Your task to perform on an android device: Search for logitech g502 on bestbuy, select the first entry, add it to the cart, then select checkout. Image 0: 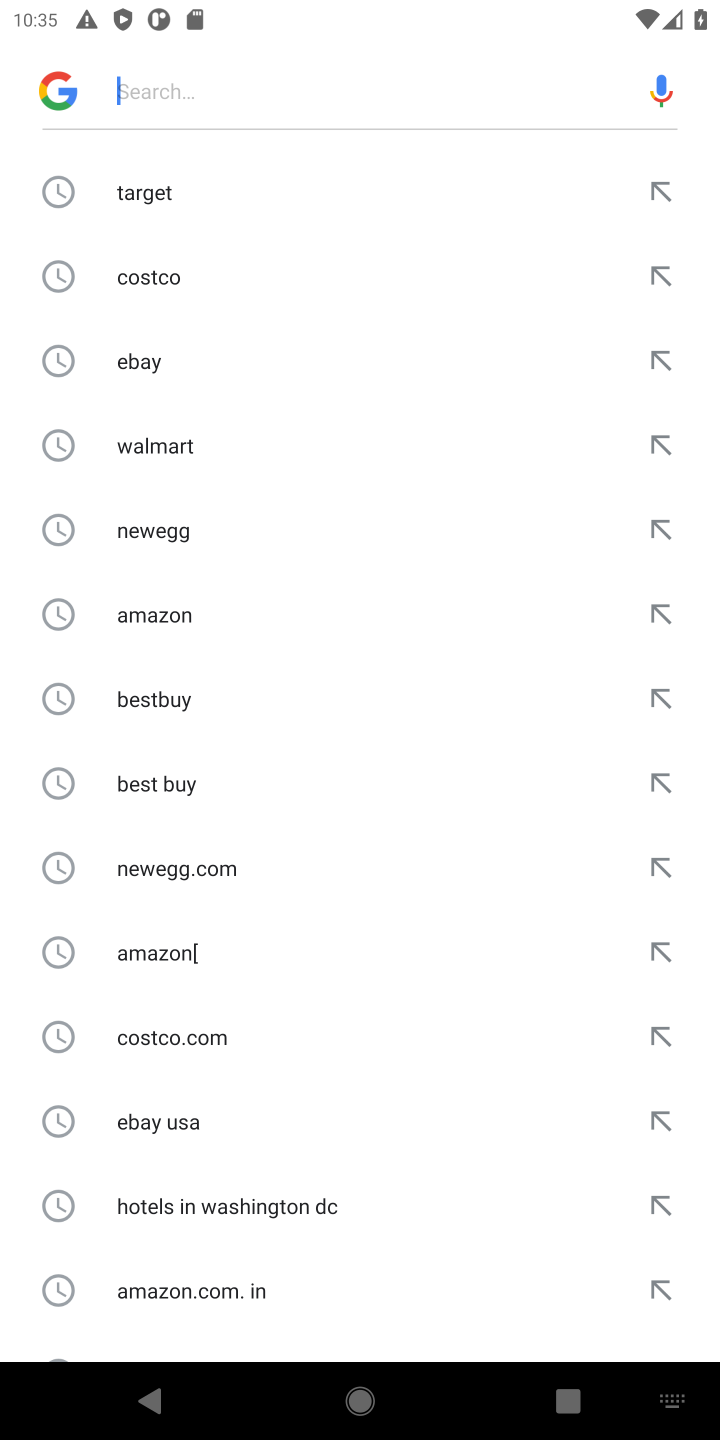
Step 0: press home button
Your task to perform on an android device: Search for logitech g502 on bestbuy, select the first entry, add it to the cart, then select checkout. Image 1: 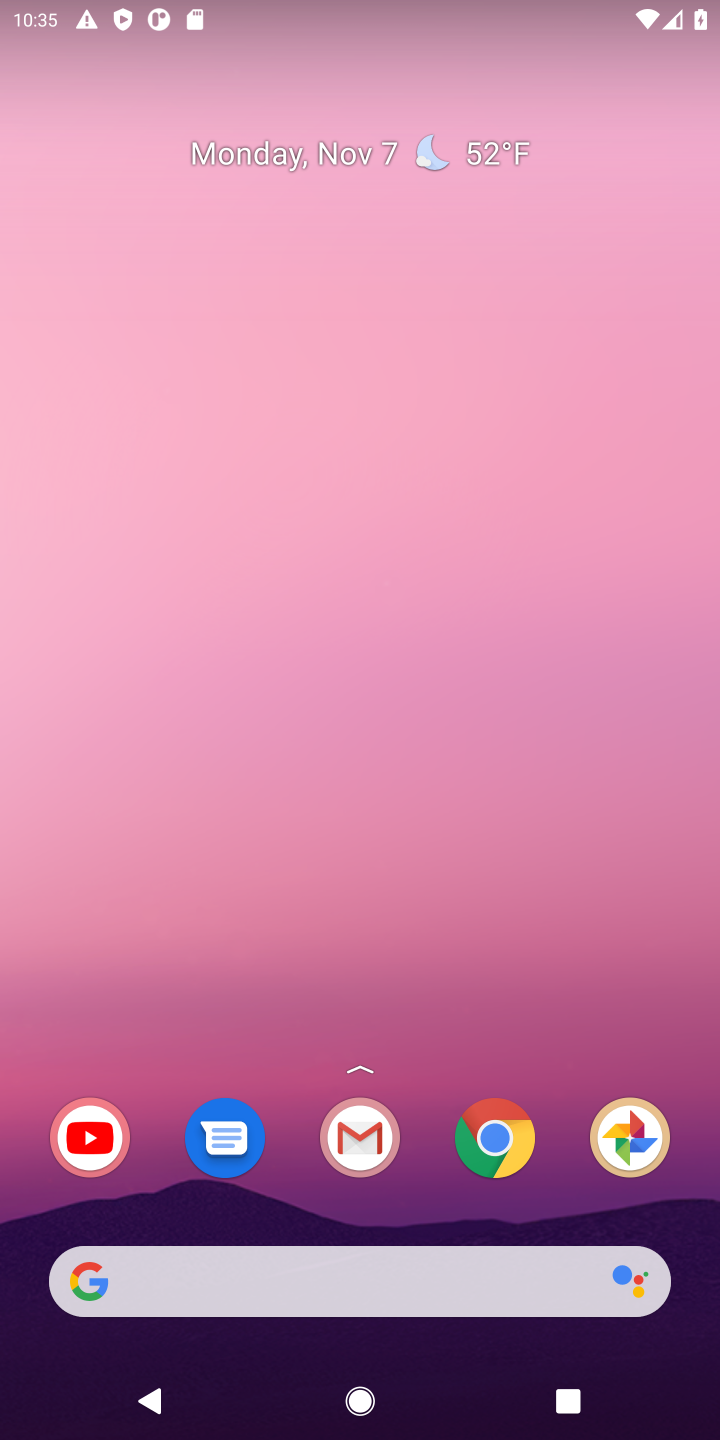
Step 1: click (494, 1124)
Your task to perform on an android device: Search for logitech g502 on bestbuy, select the first entry, add it to the cart, then select checkout. Image 2: 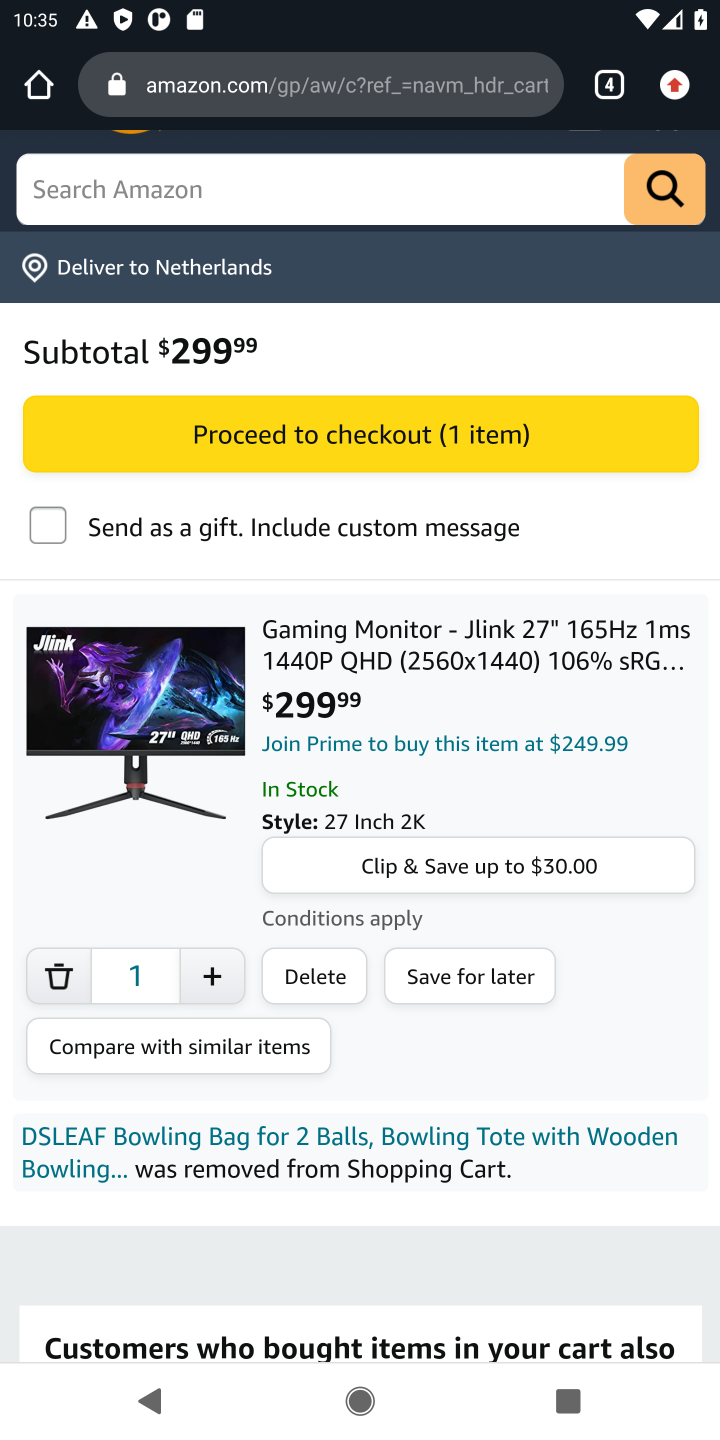
Step 2: click (233, 93)
Your task to perform on an android device: Search for logitech g502 on bestbuy, select the first entry, add it to the cart, then select checkout. Image 3: 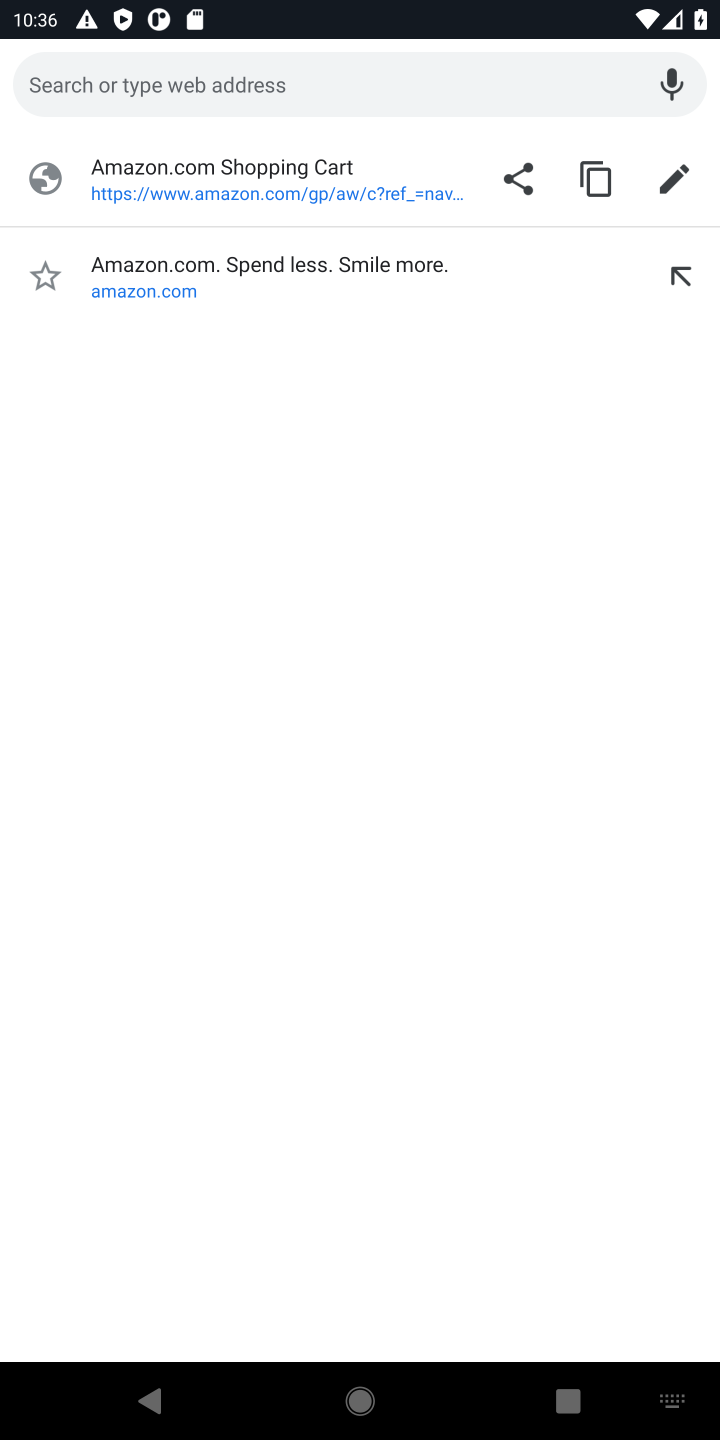
Step 3: type "bestbuy"
Your task to perform on an android device: Search for logitech g502 on bestbuy, select the first entry, add it to the cart, then select checkout. Image 4: 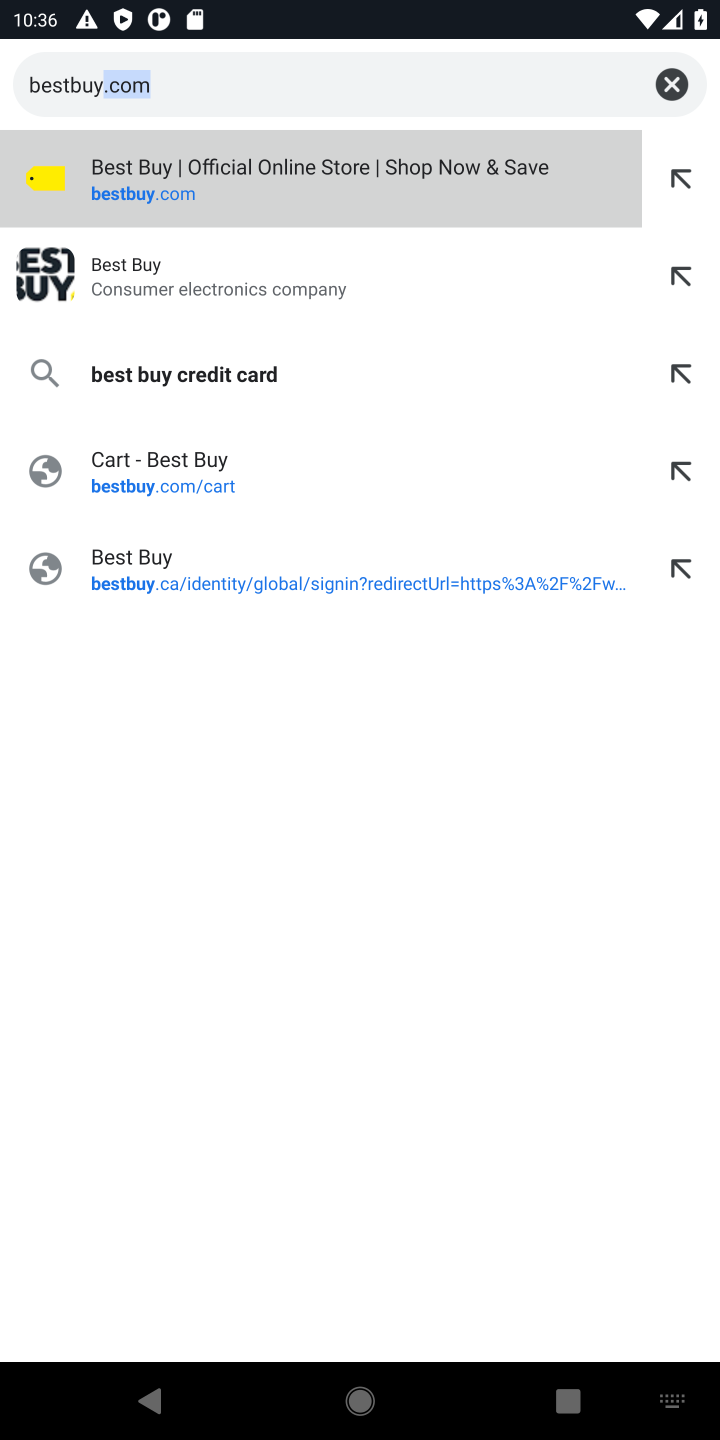
Step 4: click (143, 263)
Your task to perform on an android device: Search for logitech g502 on bestbuy, select the first entry, add it to the cart, then select checkout. Image 5: 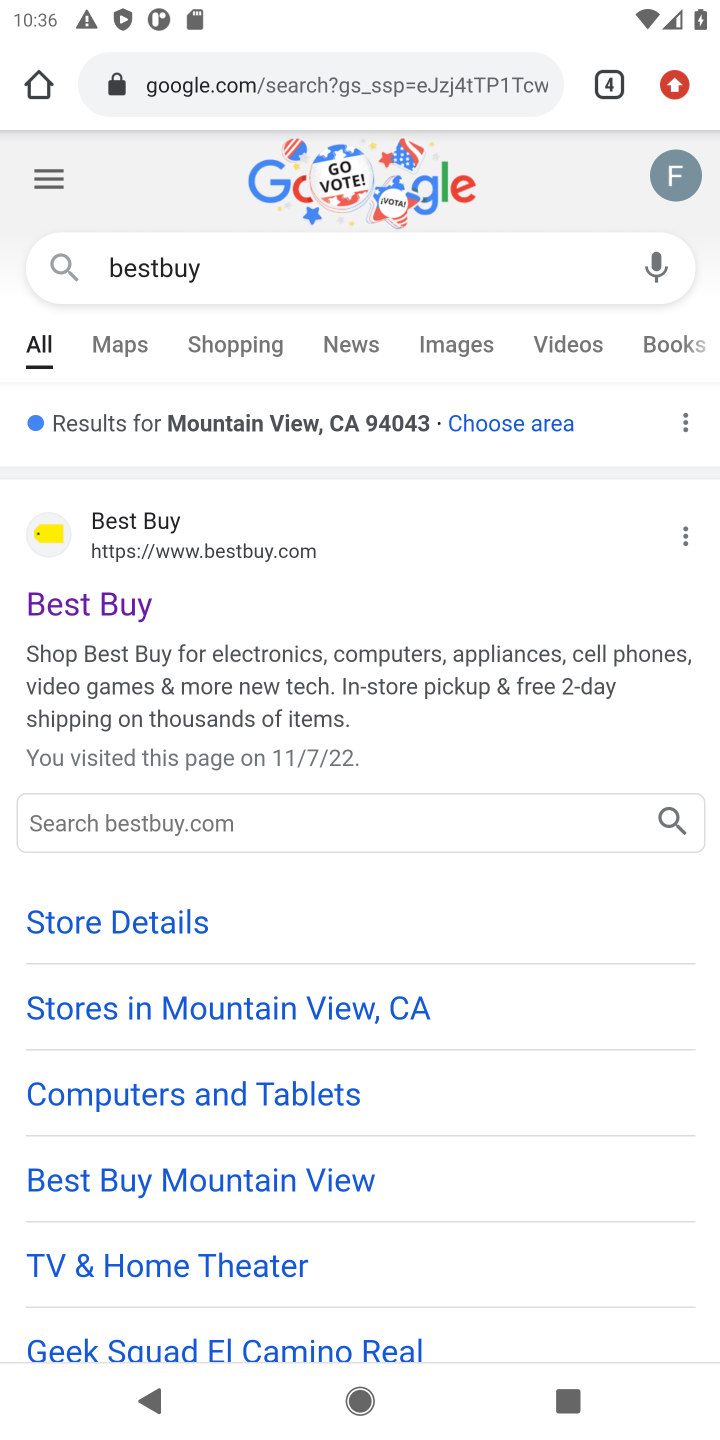
Step 5: click (82, 602)
Your task to perform on an android device: Search for logitech g502 on bestbuy, select the first entry, add it to the cart, then select checkout. Image 6: 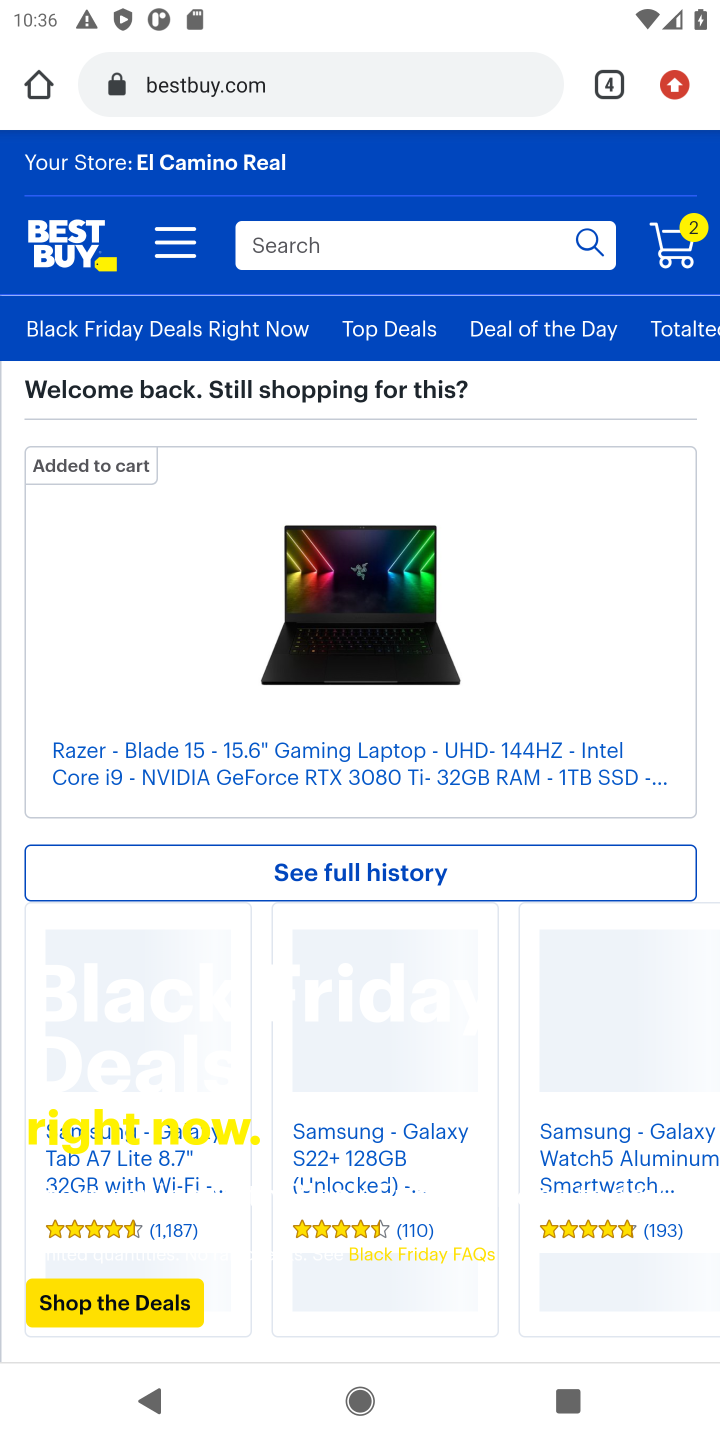
Step 6: click (305, 259)
Your task to perform on an android device: Search for logitech g502 on bestbuy, select the first entry, add it to the cart, then select checkout. Image 7: 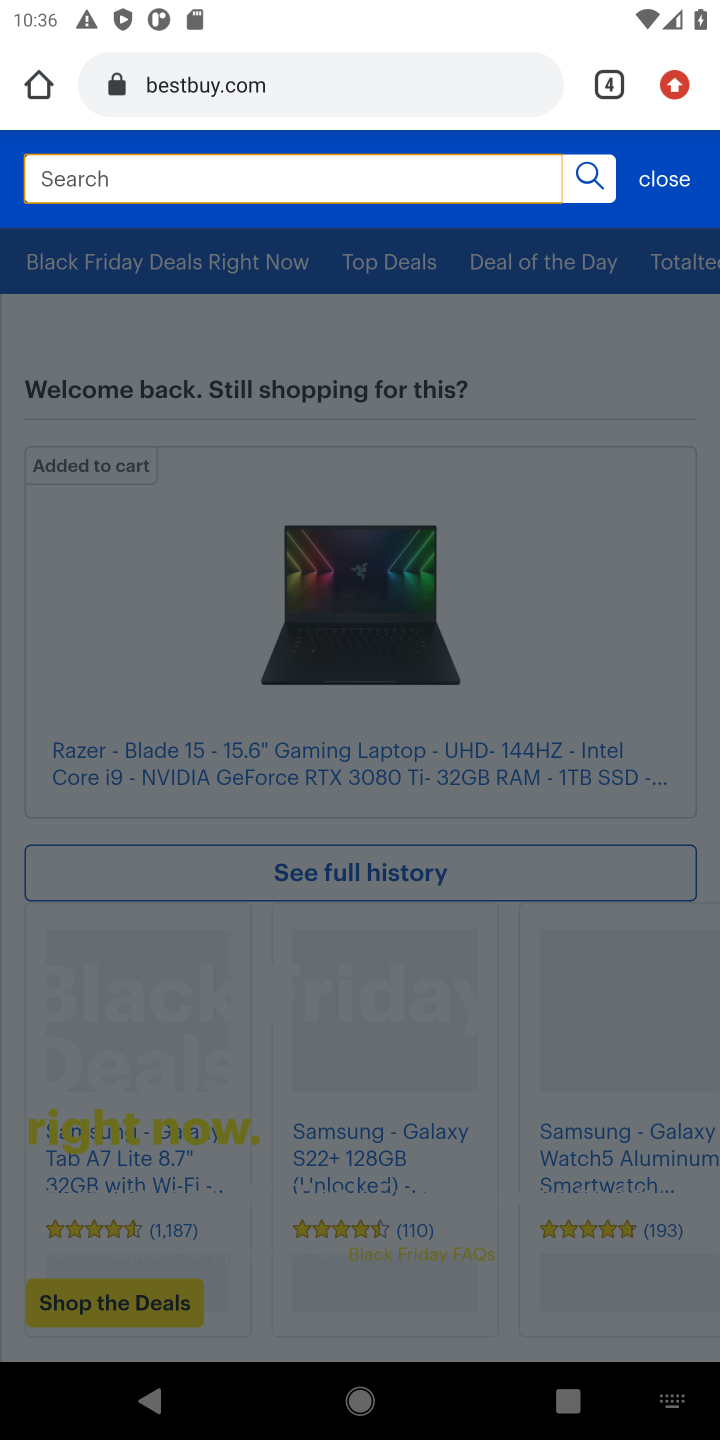
Step 7: type "logitech g 502"
Your task to perform on an android device: Search for logitech g502 on bestbuy, select the first entry, add it to the cart, then select checkout. Image 8: 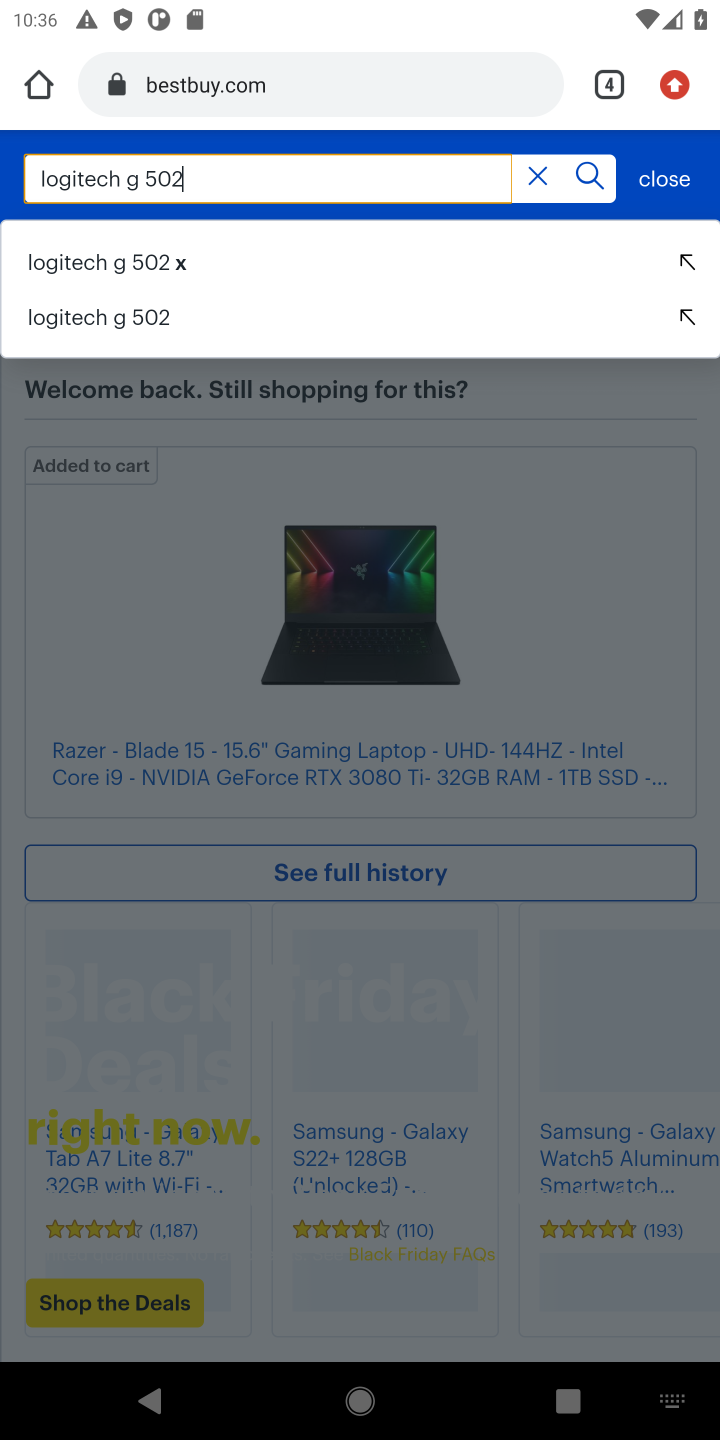
Step 8: click (127, 322)
Your task to perform on an android device: Search for logitech g502 on bestbuy, select the first entry, add it to the cart, then select checkout. Image 9: 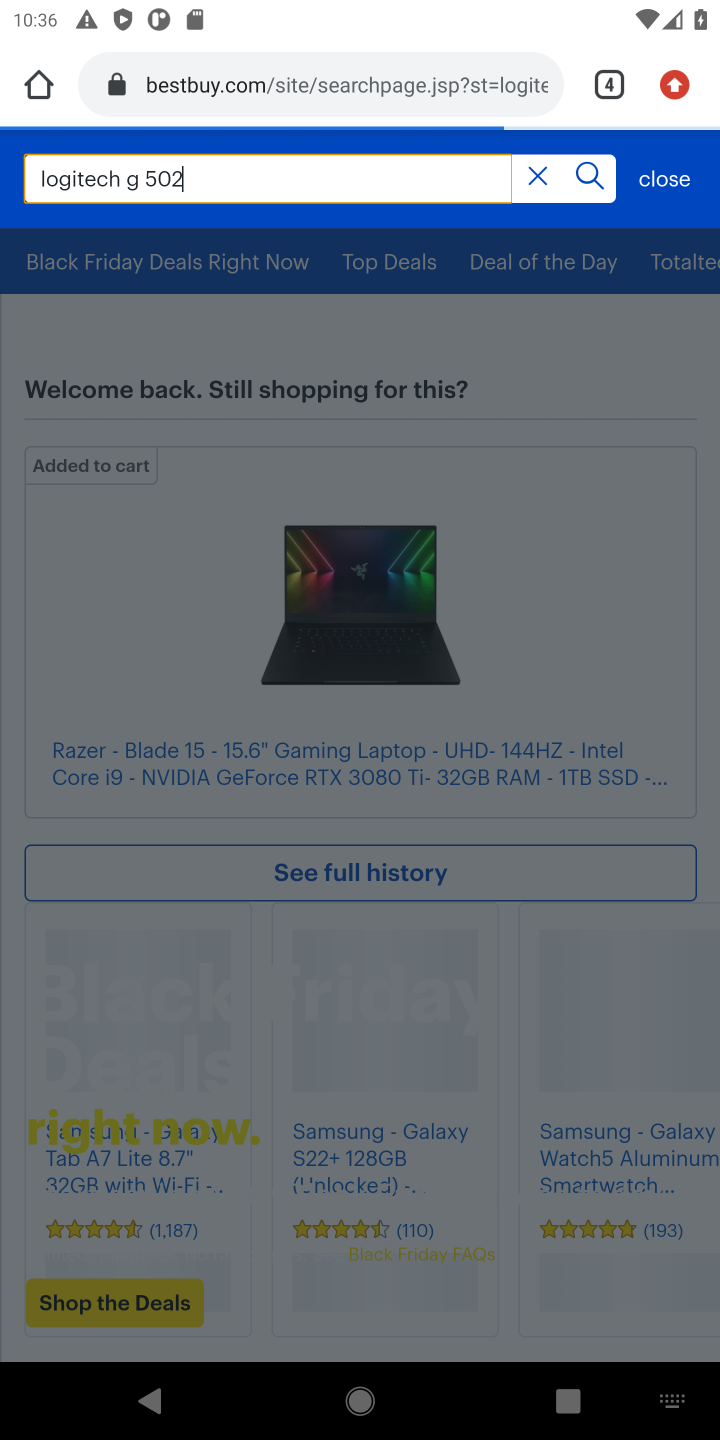
Step 9: click (588, 163)
Your task to perform on an android device: Search for logitech g502 on bestbuy, select the first entry, add it to the cart, then select checkout. Image 10: 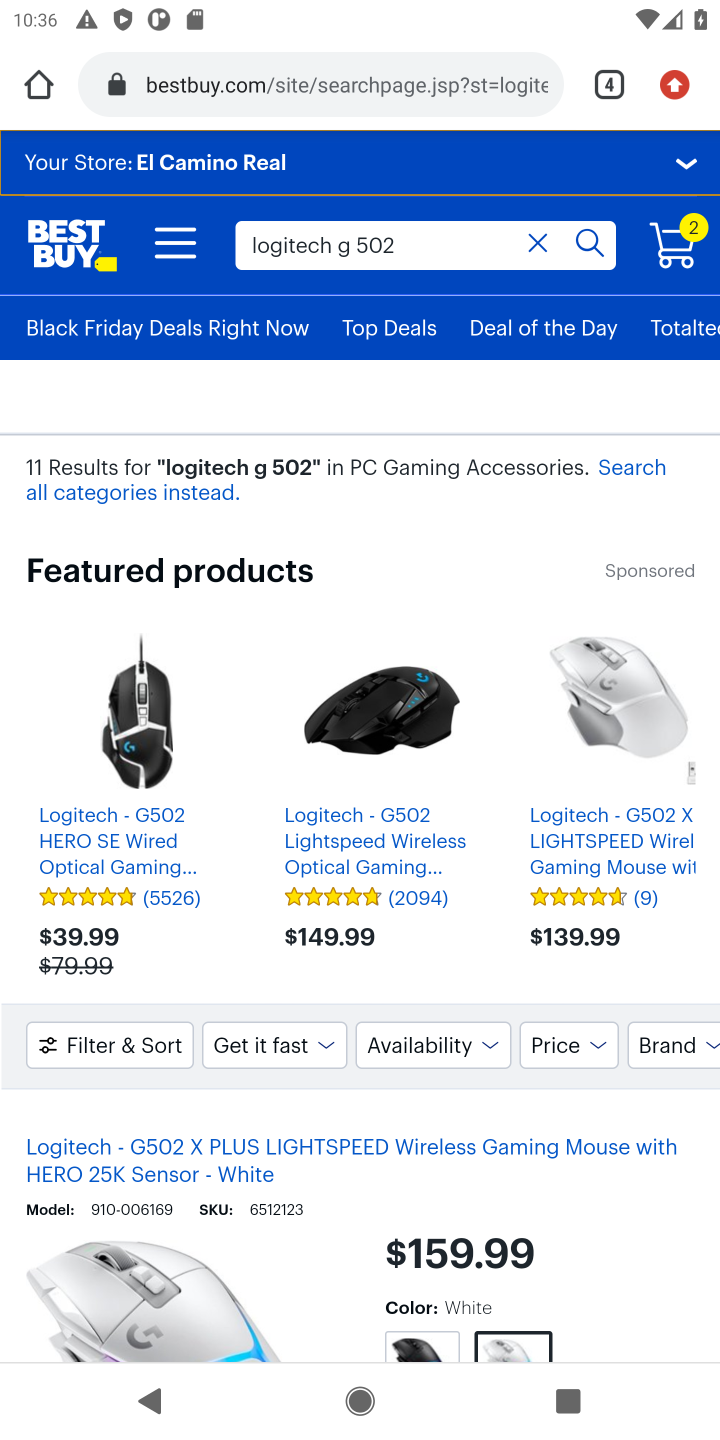
Step 10: drag from (302, 1209) to (590, 349)
Your task to perform on an android device: Search for logitech g502 on bestbuy, select the first entry, add it to the cart, then select checkout. Image 11: 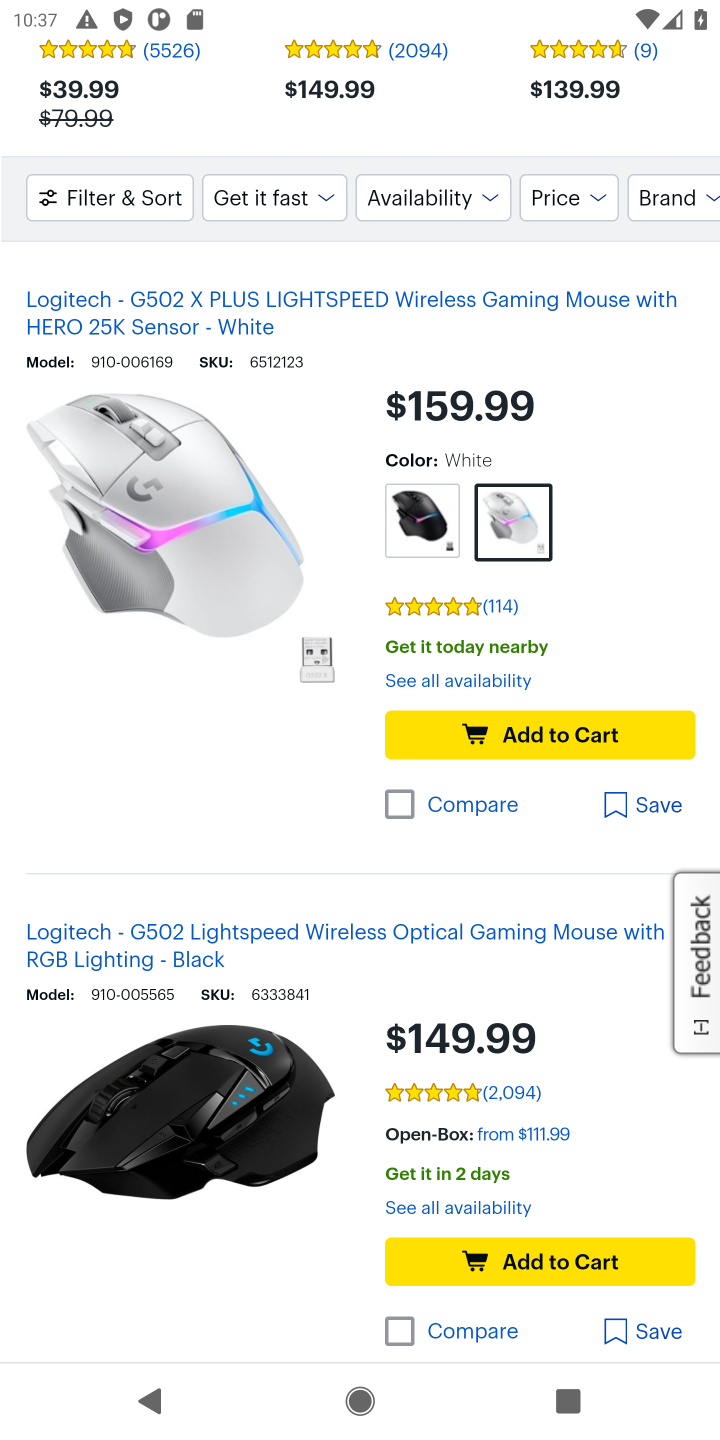
Step 11: click (582, 734)
Your task to perform on an android device: Search for logitech g502 on bestbuy, select the first entry, add it to the cart, then select checkout. Image 12: 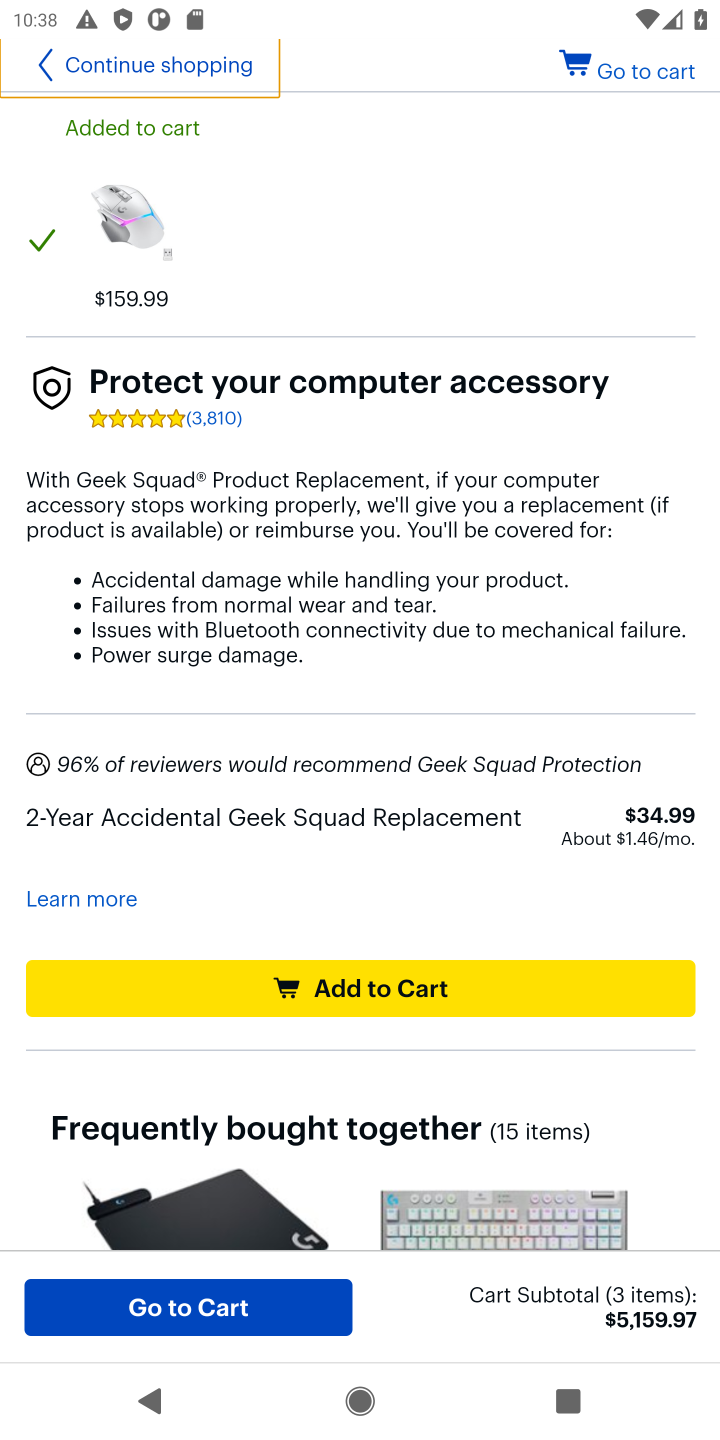
Step 12: drag from (358, 534) to (457, 480)
Your task to perform on an android device: Search for logitech g502 on bestbuy, select the first entry, add it to the cart, then select checkout. Image 13: 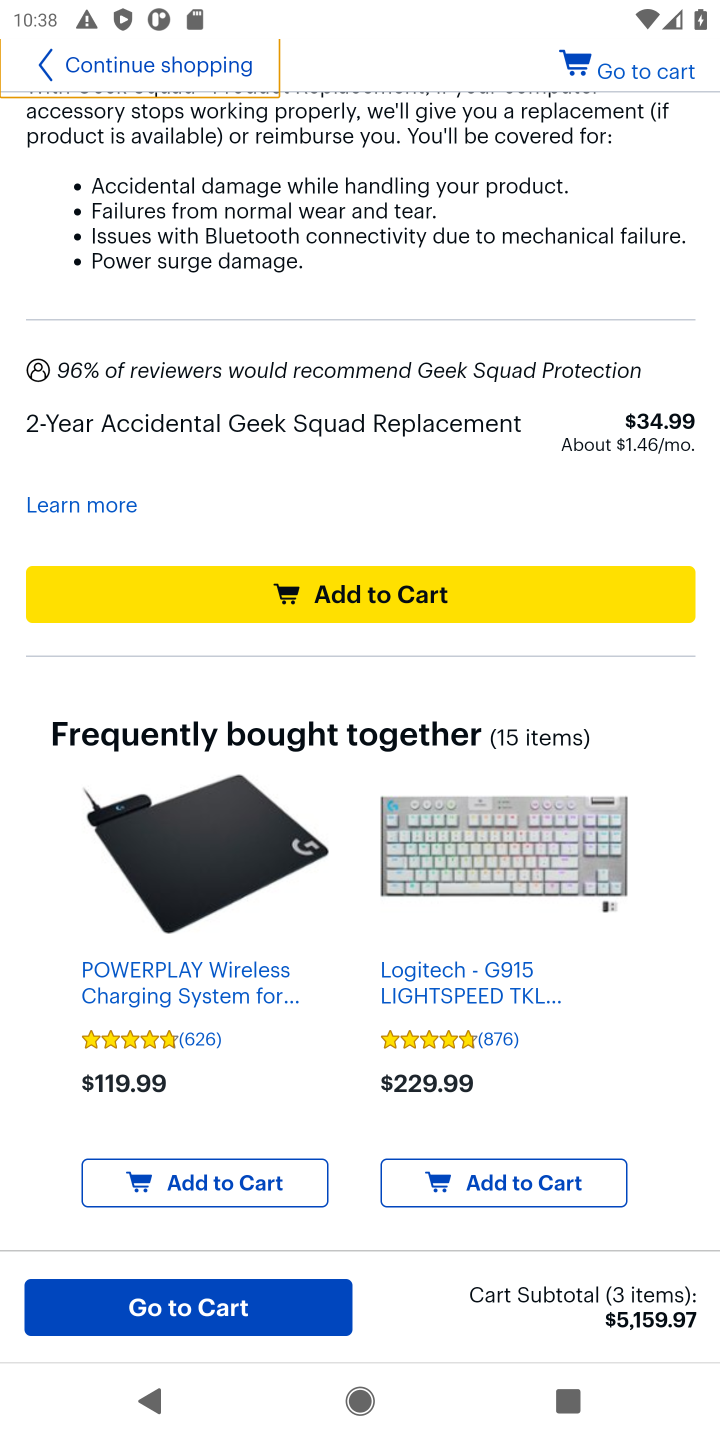
Step 13: click (405, 591)
Your task to perform on an android device: Search for logitech g502 on bestbuy, select the first entry, add it to the cart, then select checkout. Image 14: 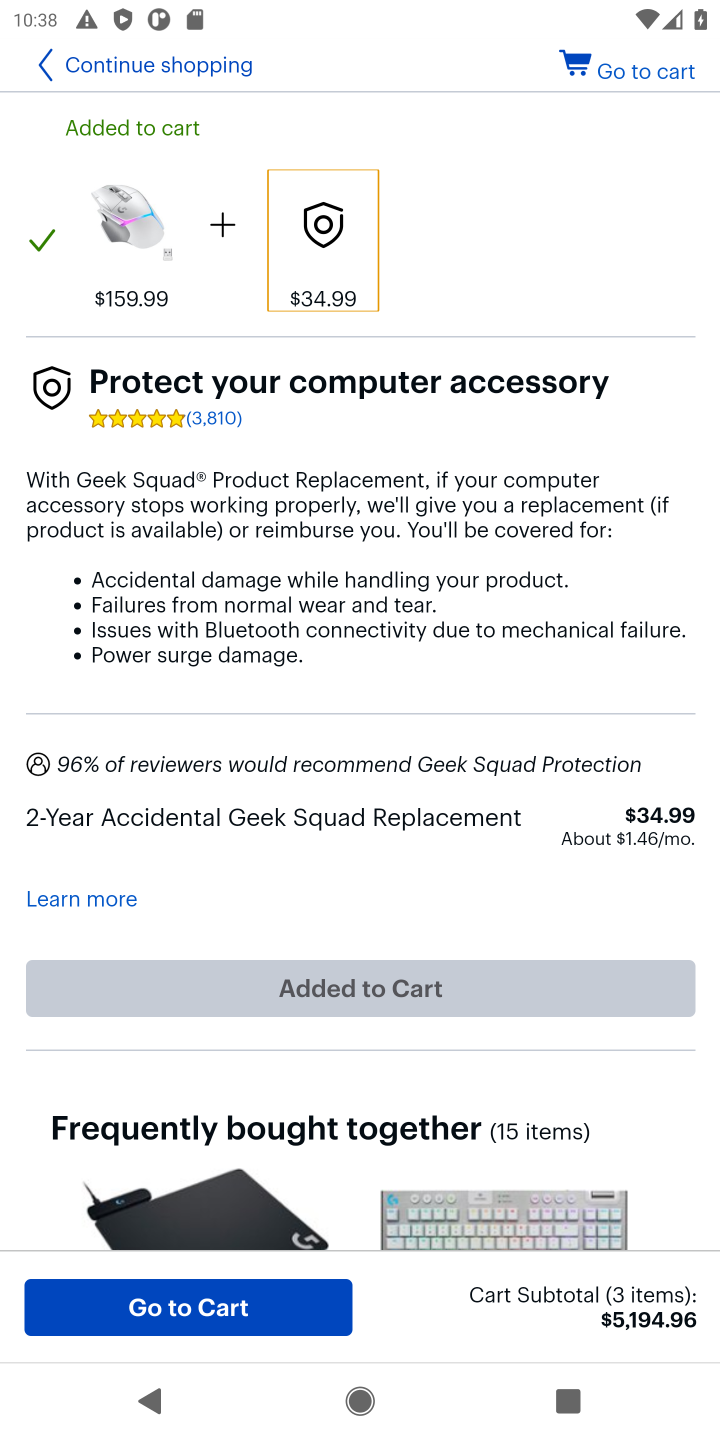
Step 14: drag from (422, 383) to (431, 889)
Your task to perform on an android device: Search for logitech g502 on bestbuy, select the first entry, add it to the cart, then select checkout. Image 15: 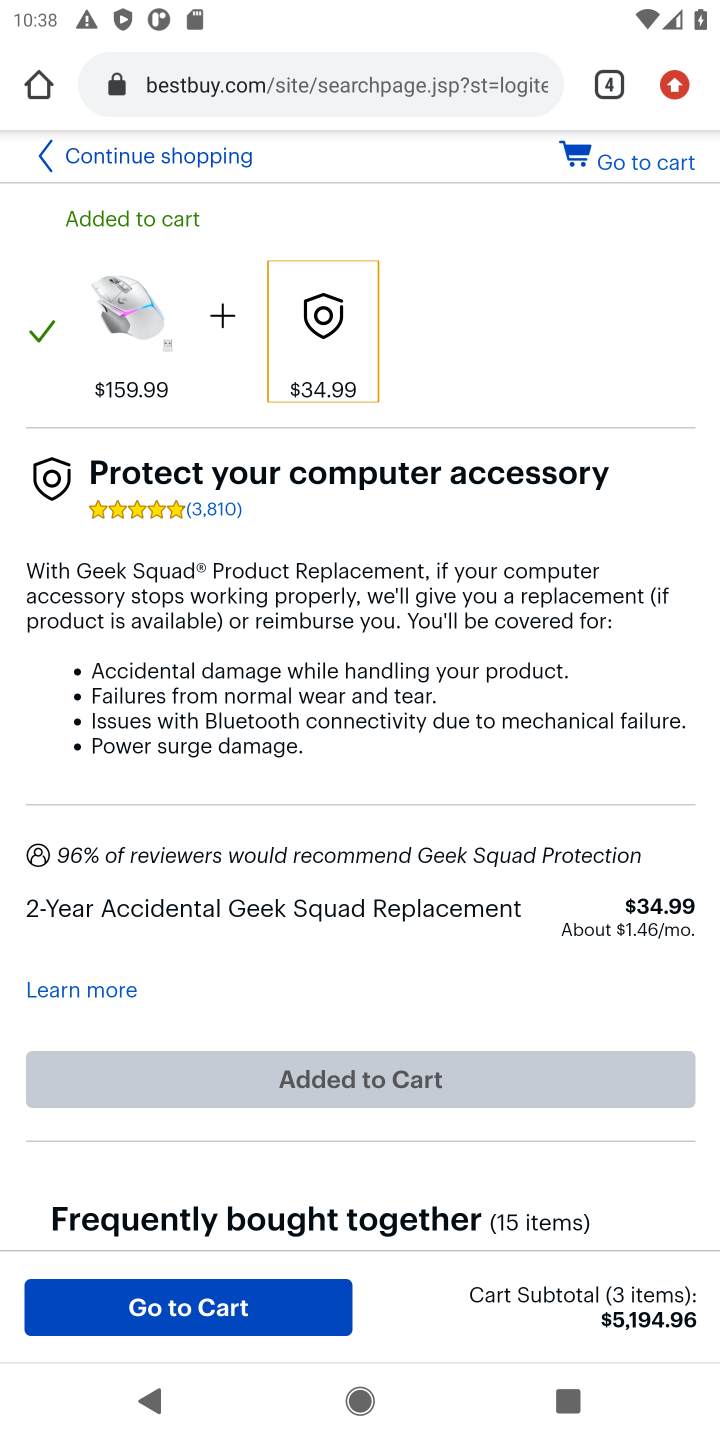
Step 15: click (616, 159)
Your task to perform on an android device: Search for logitech g502 on bestbuy, select the first entry, add it to the cart, then select checkout. Image 16: 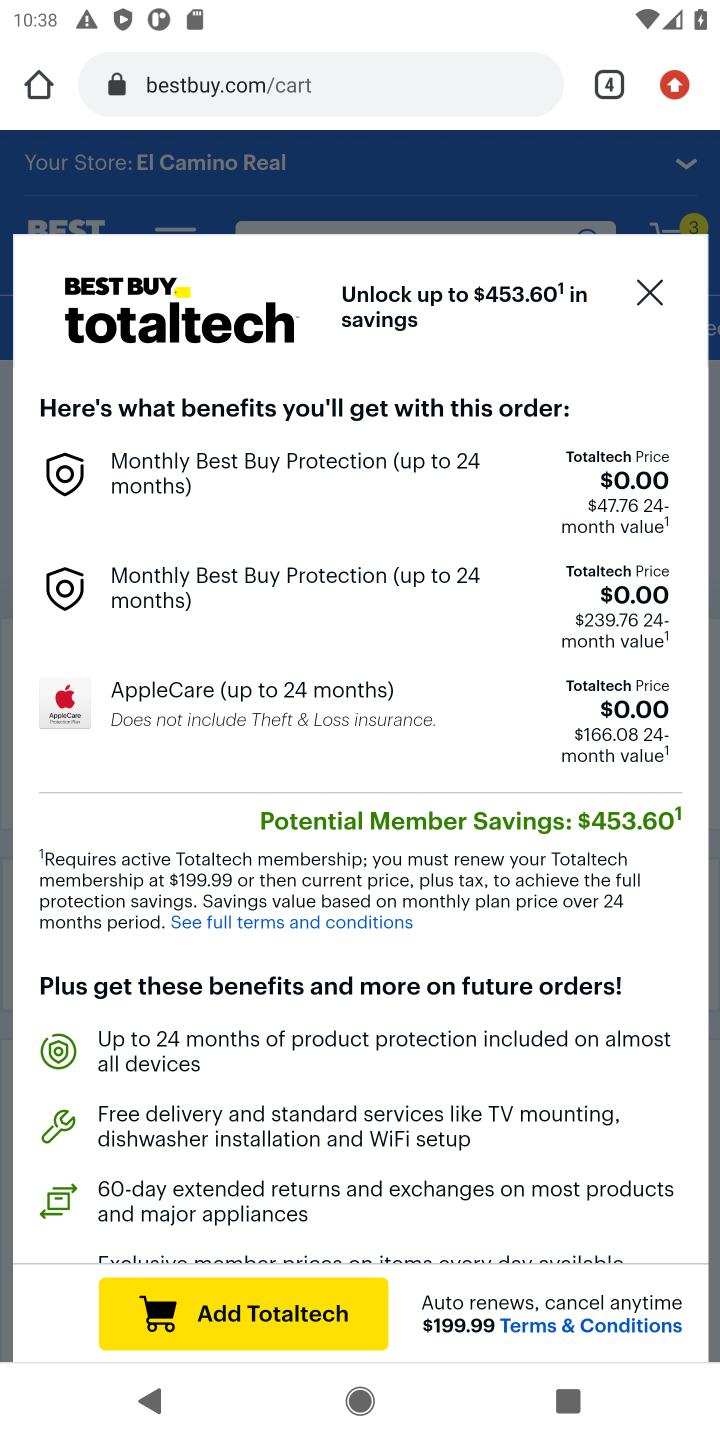
Step 16: click (651, 289)
Your task to perform on an android device: Search for logitech g502 on bestbuy, select the first entry, add it to the cart, then select checkout. Image 17: 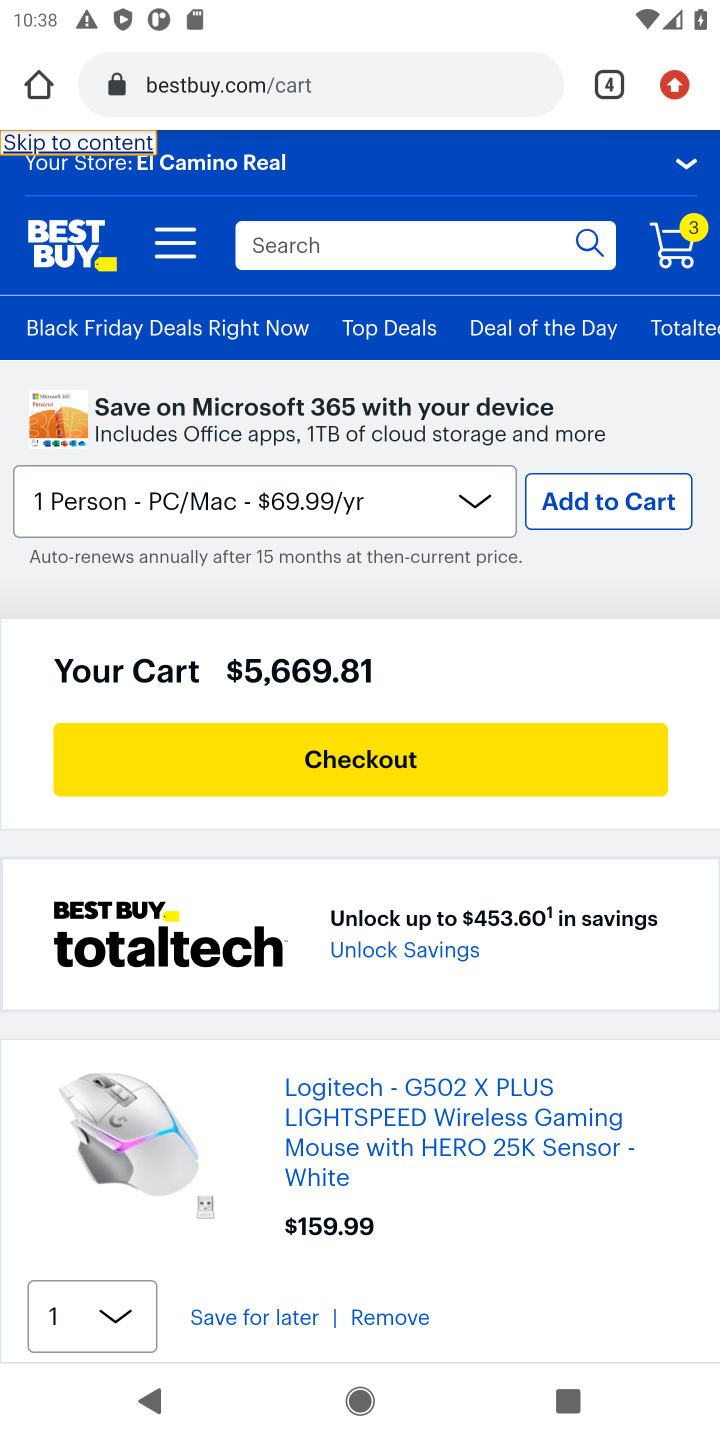
Step 17: click (685, 258)
Your task to perform on an android device: Search for logitech g502 on bestbuy, select the first entry, add it to the cart, then select checkout. Image 18: 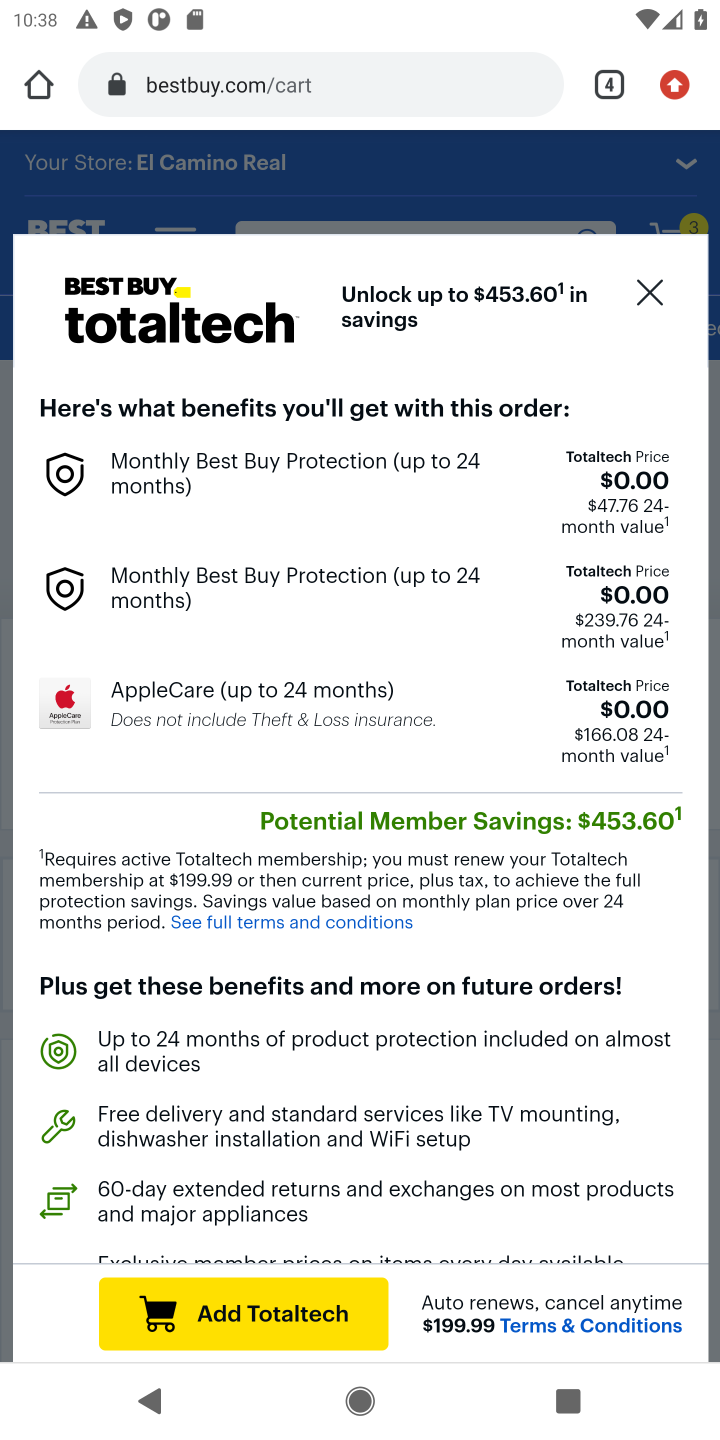
Step 18: click (650, 294)
Your task to perform on an android device: Search for logitech g502 on bestbuy, select the first entry, add it to the cart, then select checkout. Image 19: 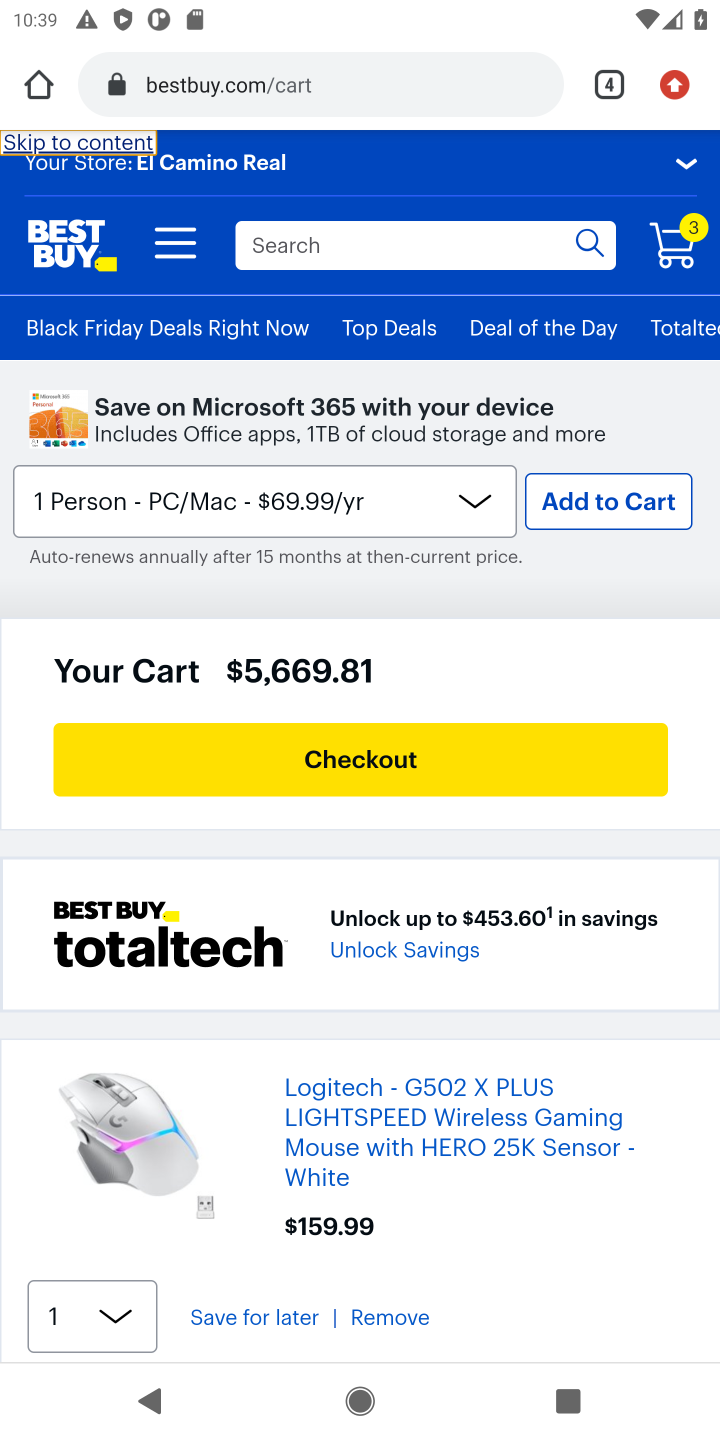
Step 19: click (420, 763)
Your task to perform on an android device: Search for logitech g502 on bestbuy, select the first entry, add it to the cart, then select checkout. Image 20: 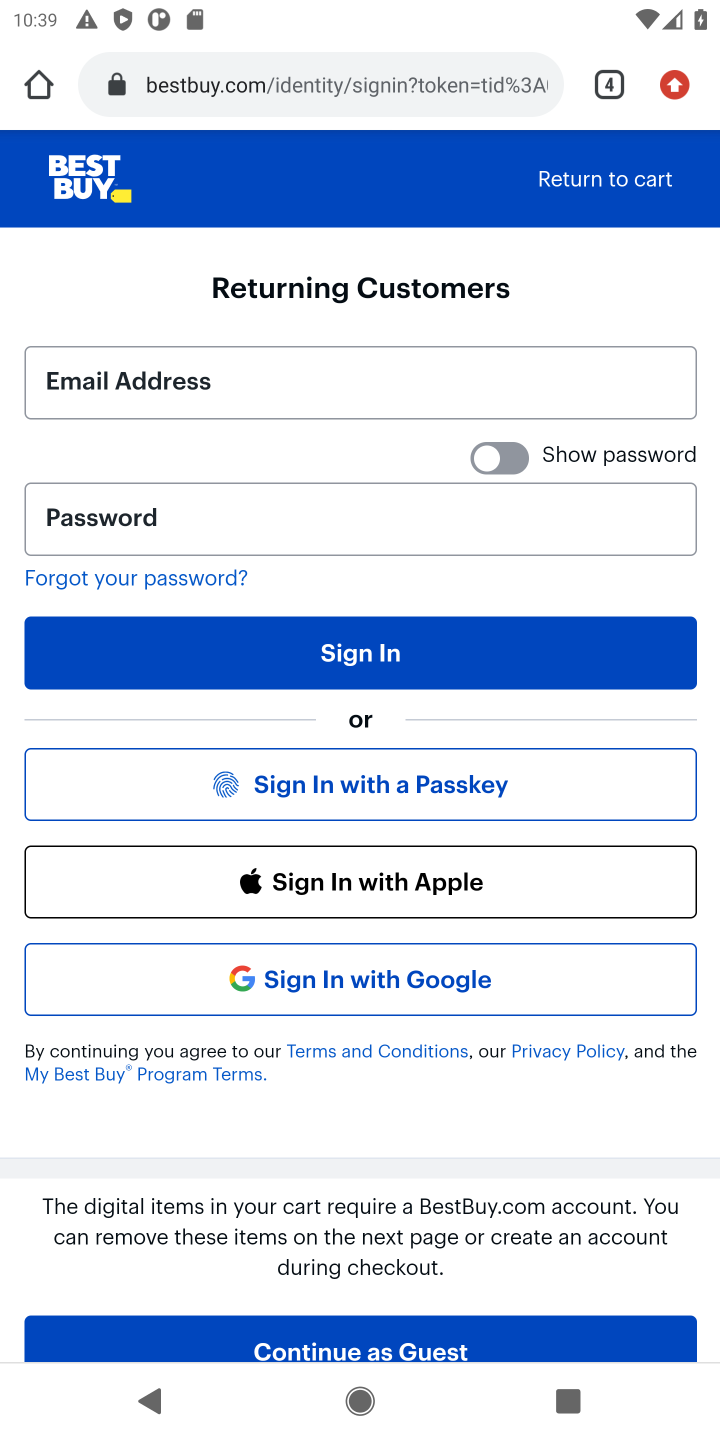
Step 20: drag from (503, 1003) to (680, 753)
Your task to perform on an android device: Search for logitech g502 on bestbuy, select the first entry, add it to the cart, then select checkout. Image 21: 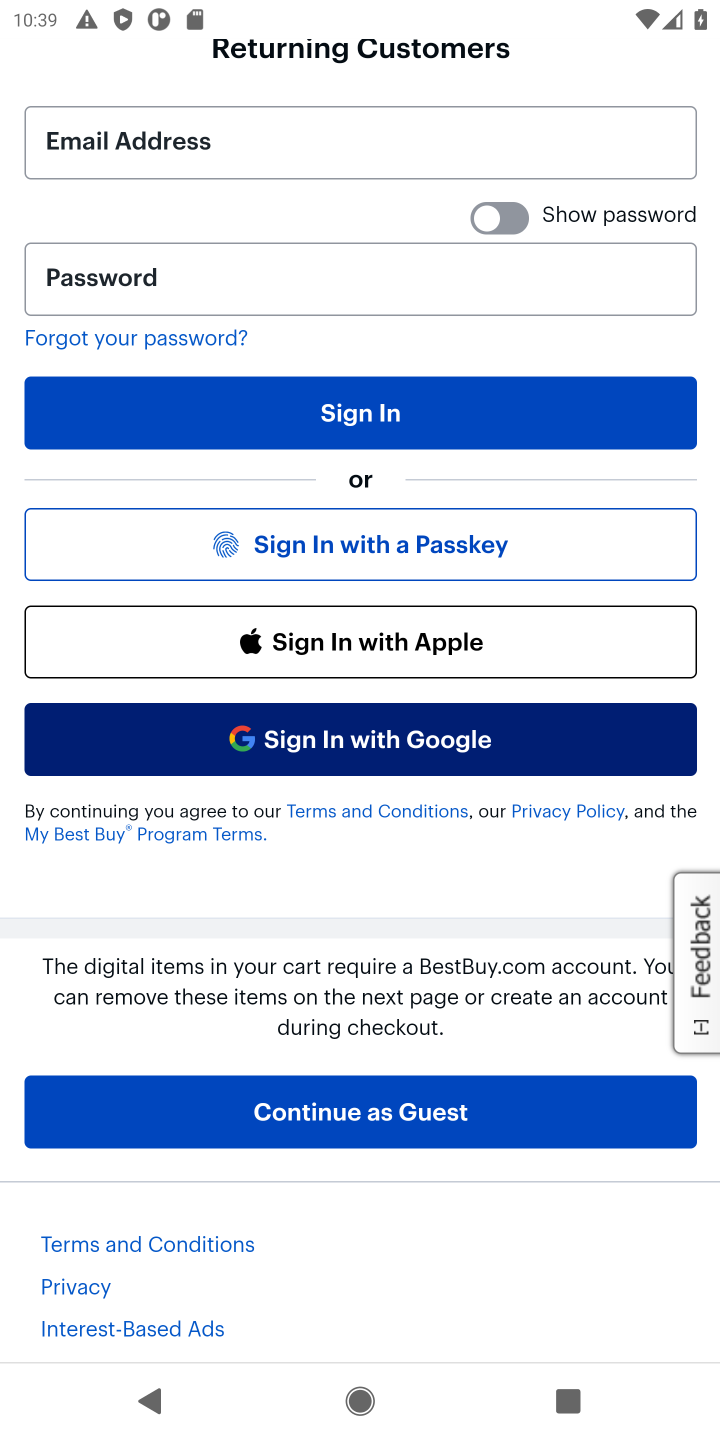
Step 21: click (273, 1119)
Your task to perform on an android device: Search for logitech g502 on bestbuy, select the first entry, add it to the cart, then select checkout. Image 22: 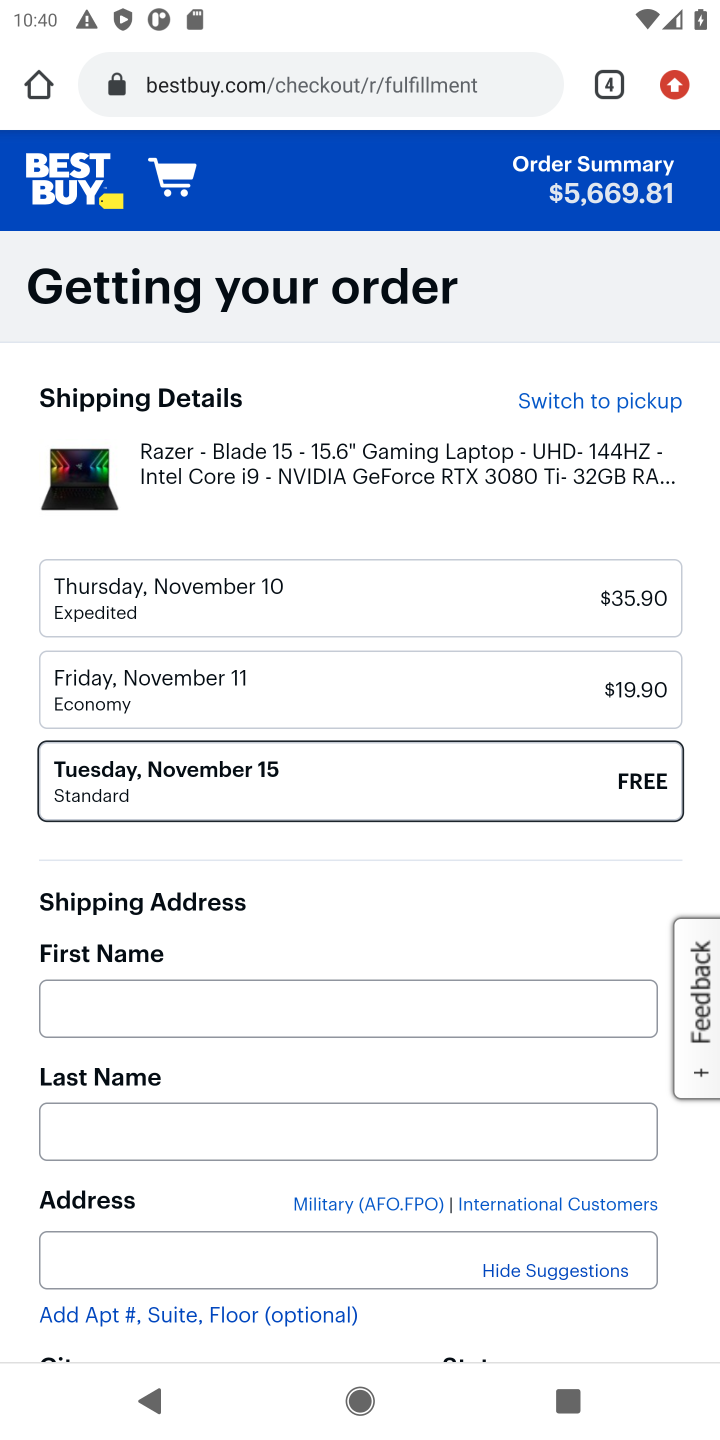
Step 22: task complete